Your task to perform on an android device: Add alienware aurora to the cart on bestbuy, then select checkout. Image 0: 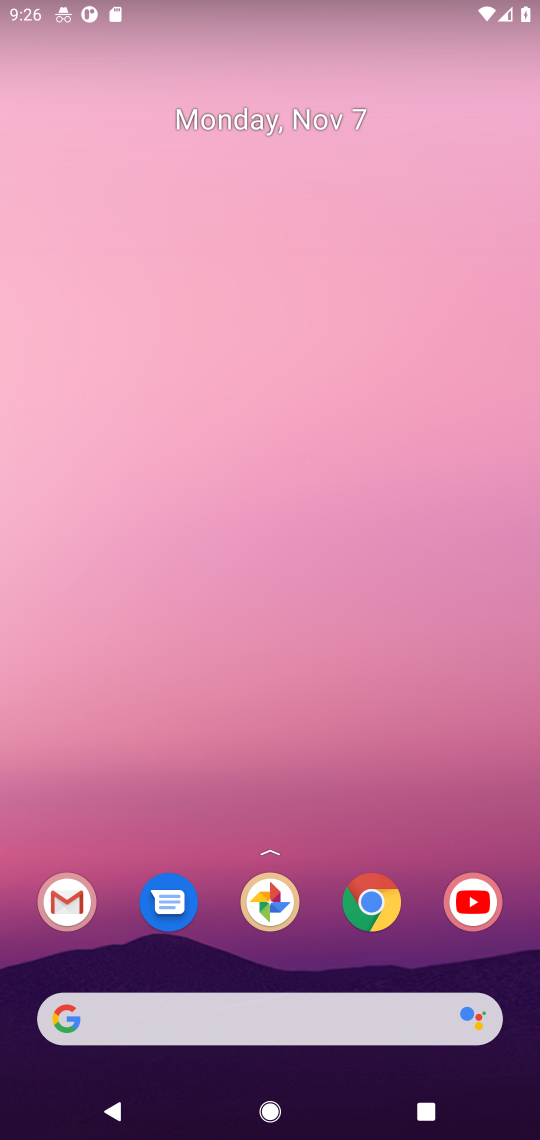
Step 0: click (370, 913)
Your task to perform on an android device: Add alienware aurora to the cart on bestbuy, then select checkout. Image 1: 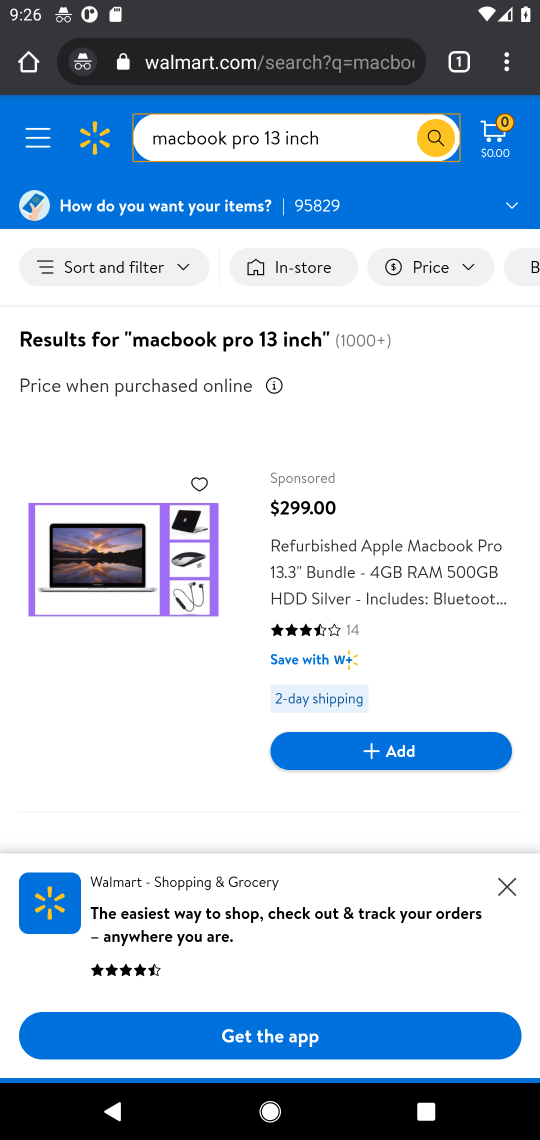
Step 1: click (291, 68)
Your task to perform on an android device: Add alienware aurora to the cart on bestbuy, then select checkout. Image 2: 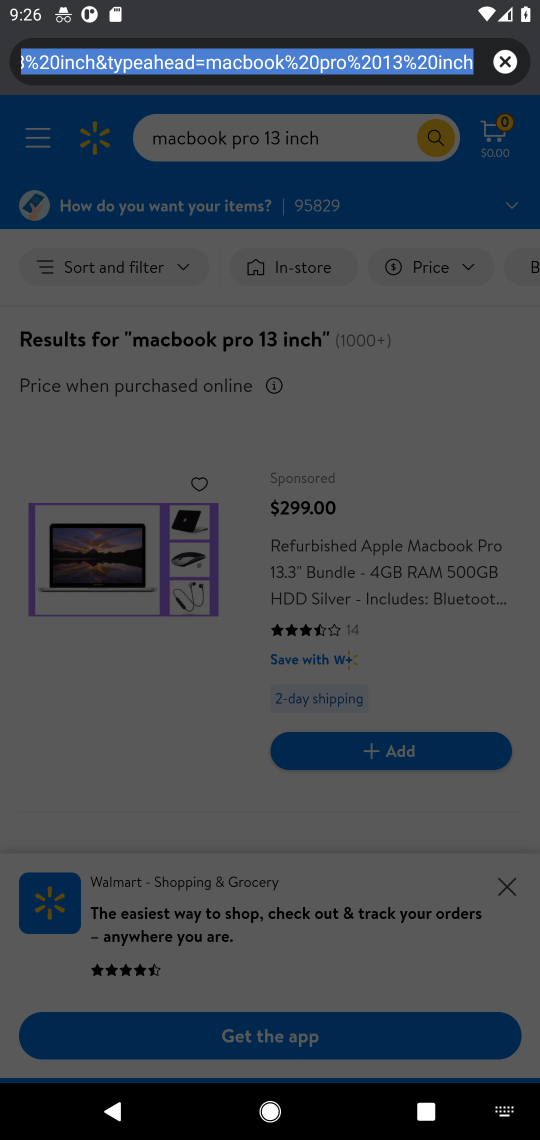
Step 2: type "bestbuy.com"
Your task to perform on an android device: Add alienware aurora to the cart on bestbuy, then select checkout. Image 3: 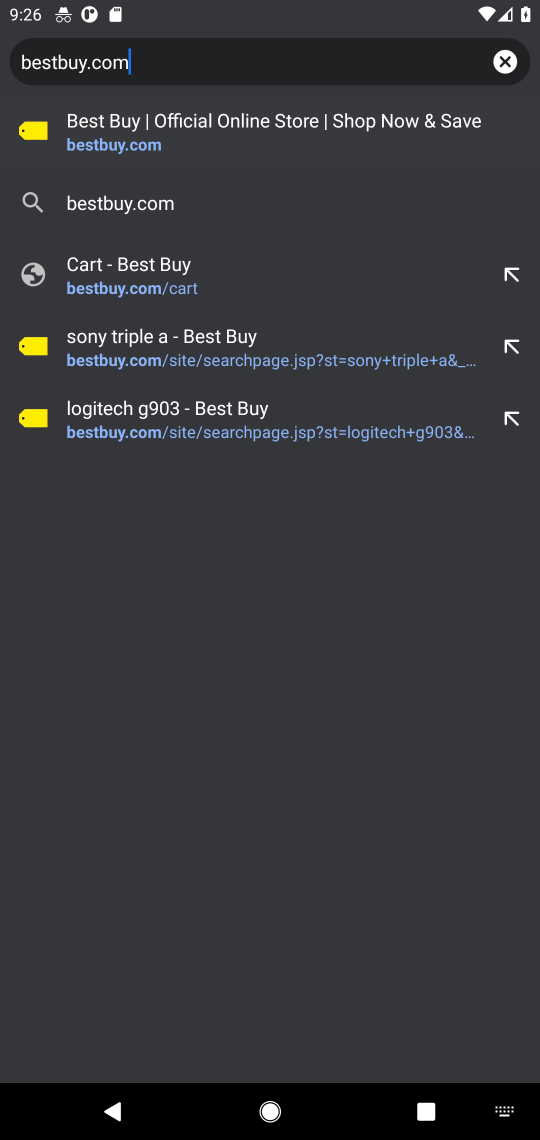
Step 3: click (148, 151)
Your task to perform on an android device: Add alienware aurora to the cart on bestbuy, then select checkout. Image 4: 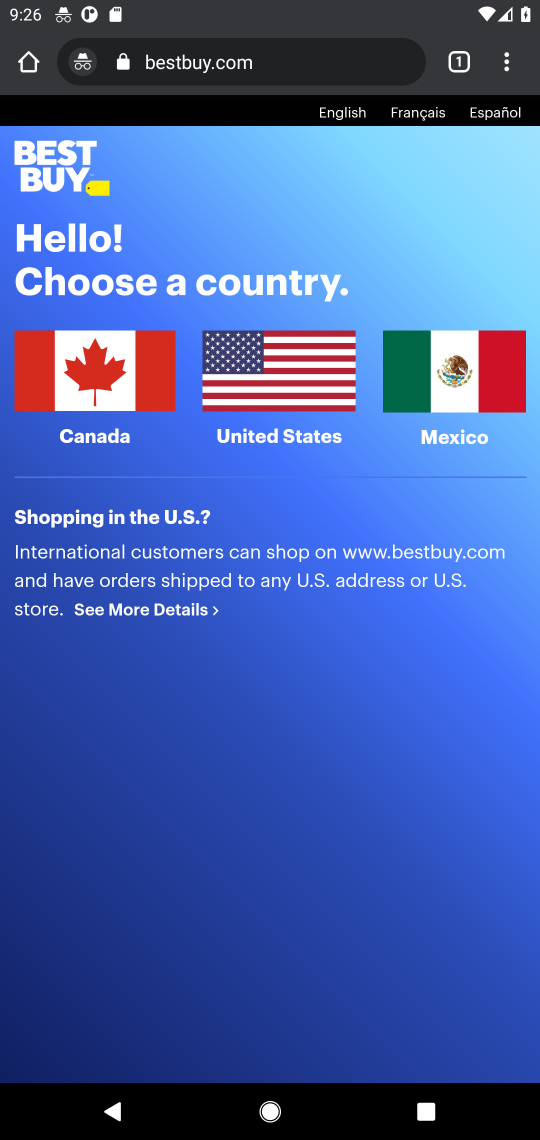
Step 4: click (308, 402)
Your task to perform on an android device: Add alienware aurora to the cart on bestbuy, then select checkout. Image 5: 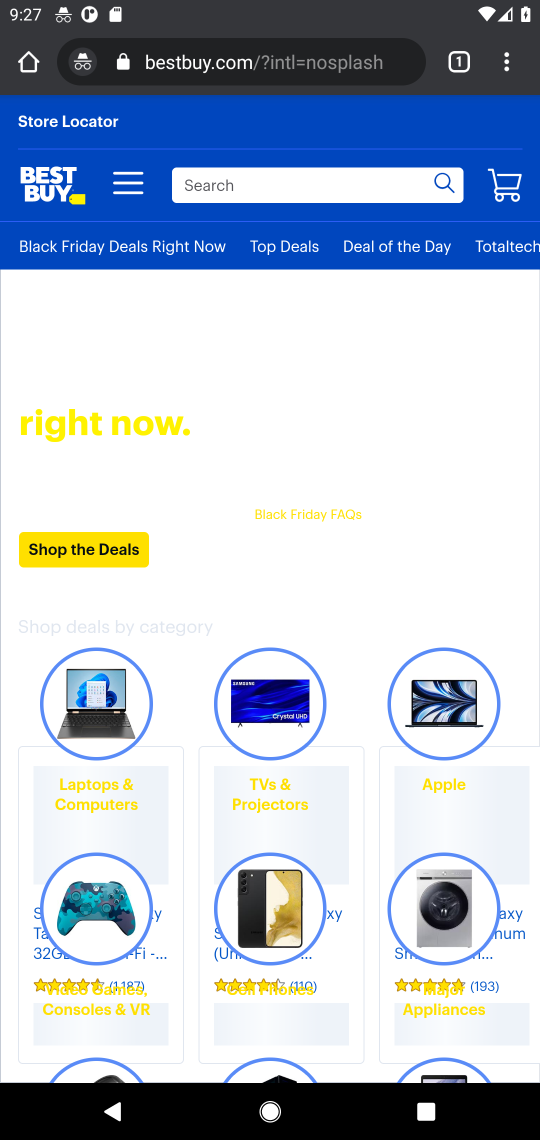
Step 5: click (263, 191)
Your task to perform on an android device: Add alienware aurora to the cart on bestbuy, then select checkout. Image 6: 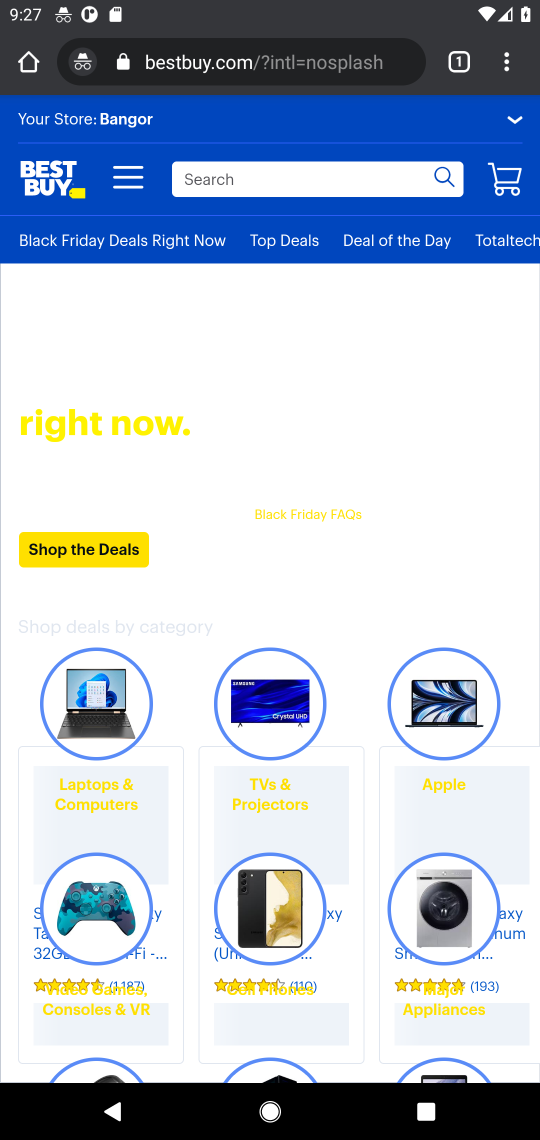
Step 6: click (324, 183)
Your task to perform on an android device: Add alienware aurora to the cart on bestbuy, then select checkout. Image 7: 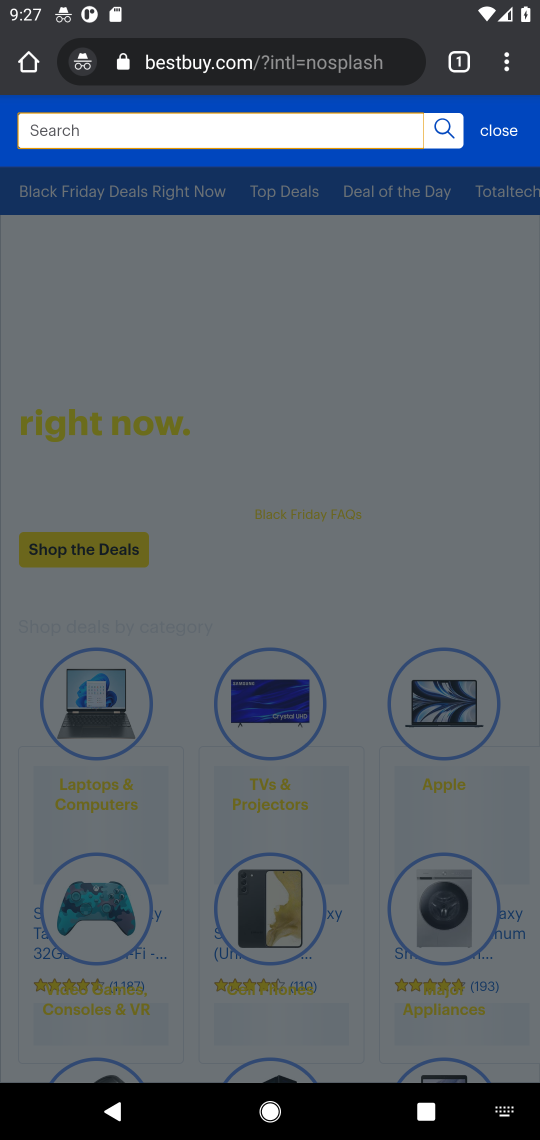
Step 7: type "alienware aurora"
Your task to perform on an android device: Add alienware aurora to the cart on bestbuy, then select checkout. Image 8: 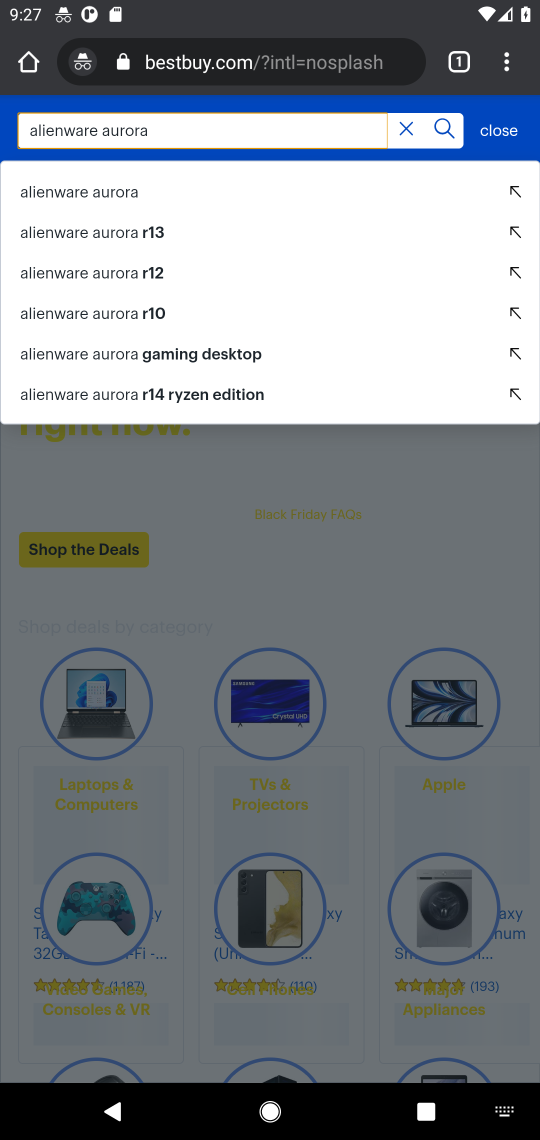
Step 8: click (105, 195)
Your task to perform on an android device: Add alienware aurora to the cart on bestbuy, then select checkout. Image 9: 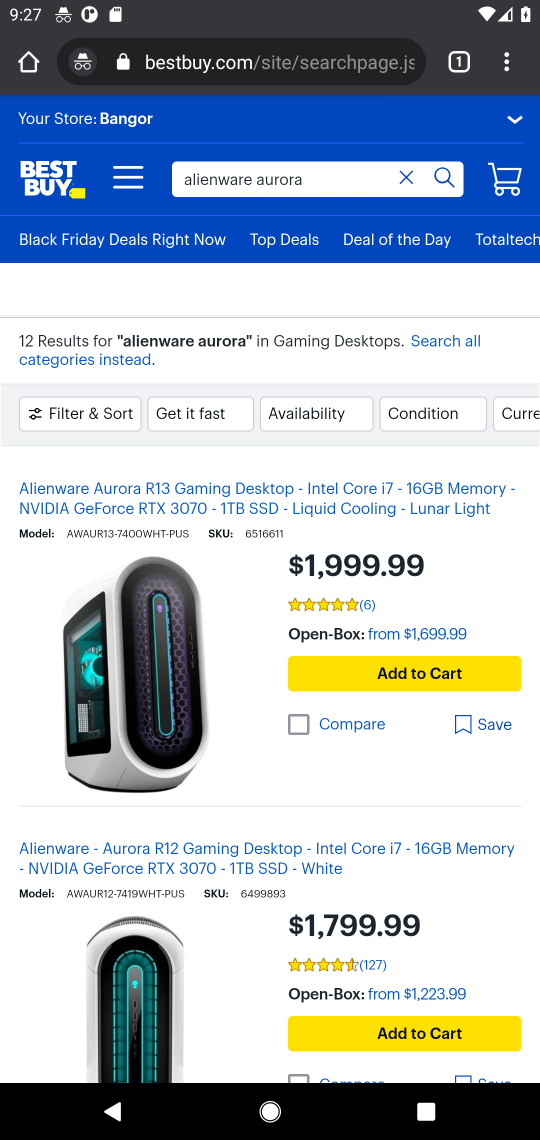
Step 9: click (362, 738)
Your task to perform on an android device: Add alienware aurora to the cart on bestbuy, then select checkout. Image 10: 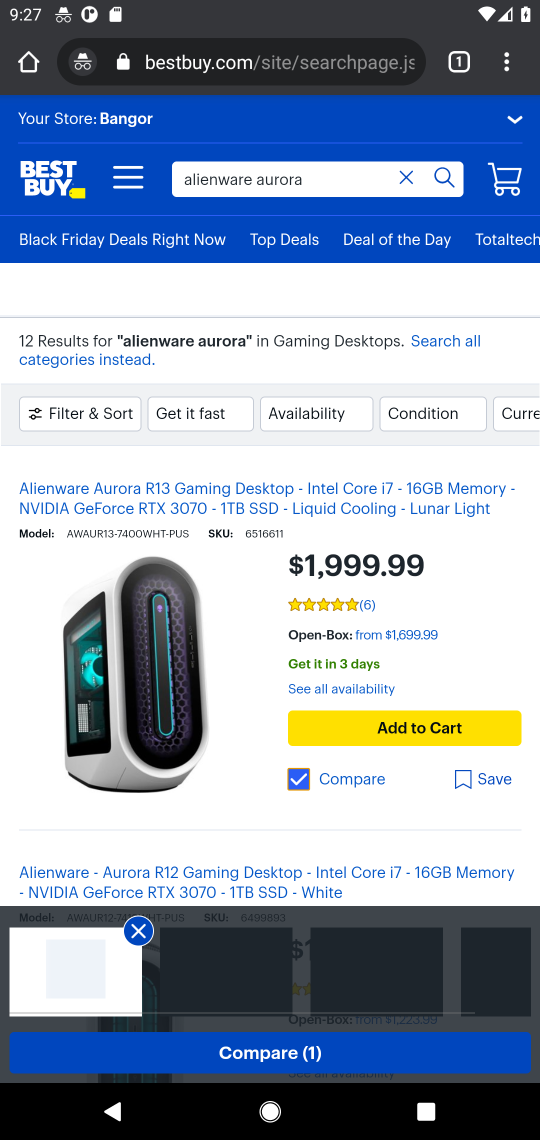
Step 10: click (412, 674)
Your task to perform on an android device: Add alienware aurora to the cart on bestbuy, then select checkout. Image 11: 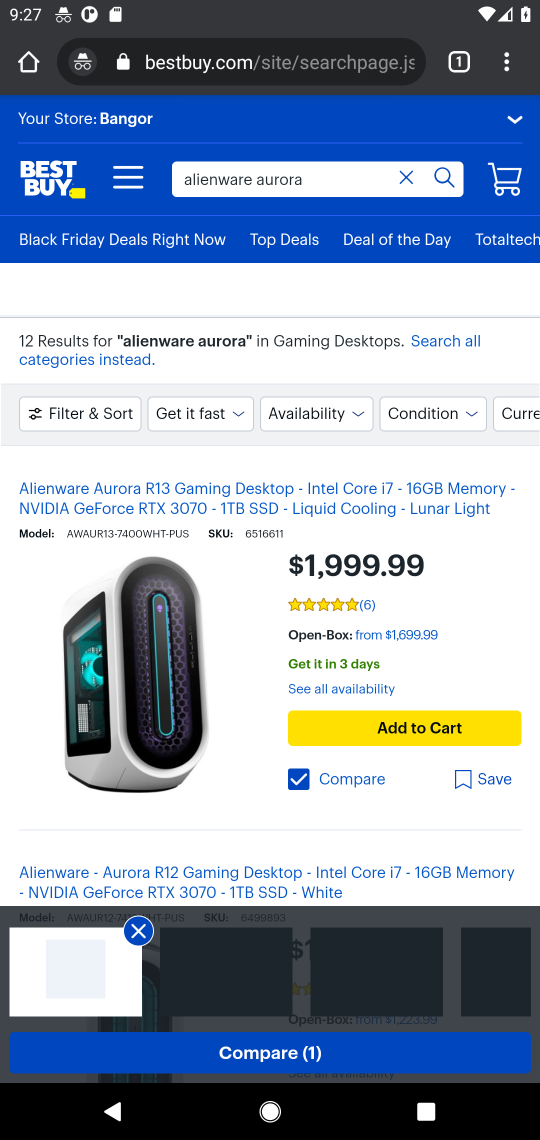
Step 11: click (391, 725)
Your task to perform on an android device: Add alienware aurora to the cart on bestbuy, then select checkout. Image 12: 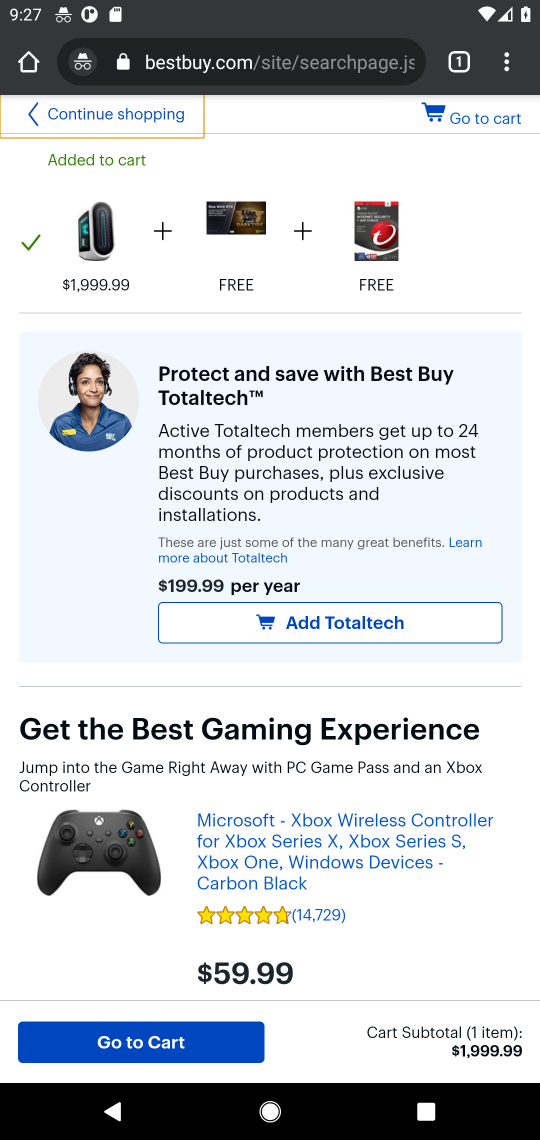
Step 12: click (472, 118)
Your task to perform on an android device: Add alienware aurora to the cart on bestbuy, then select checkout. Image 13: 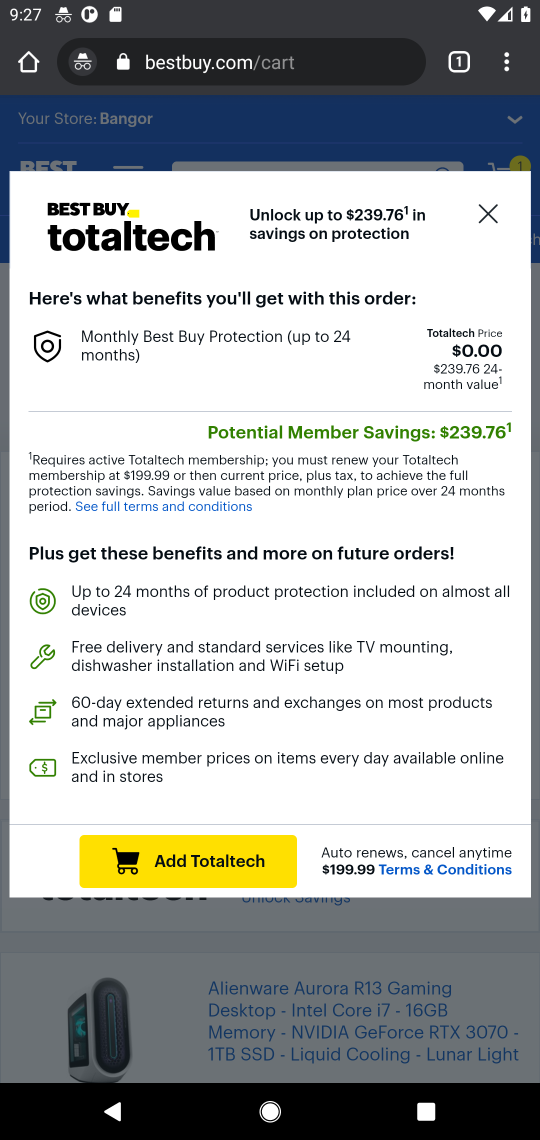
Step 13: click (490, 209)
Your task to perform on an android device: Add alienware aurora to the cart on bestbuy, then select checkout. Image 14: 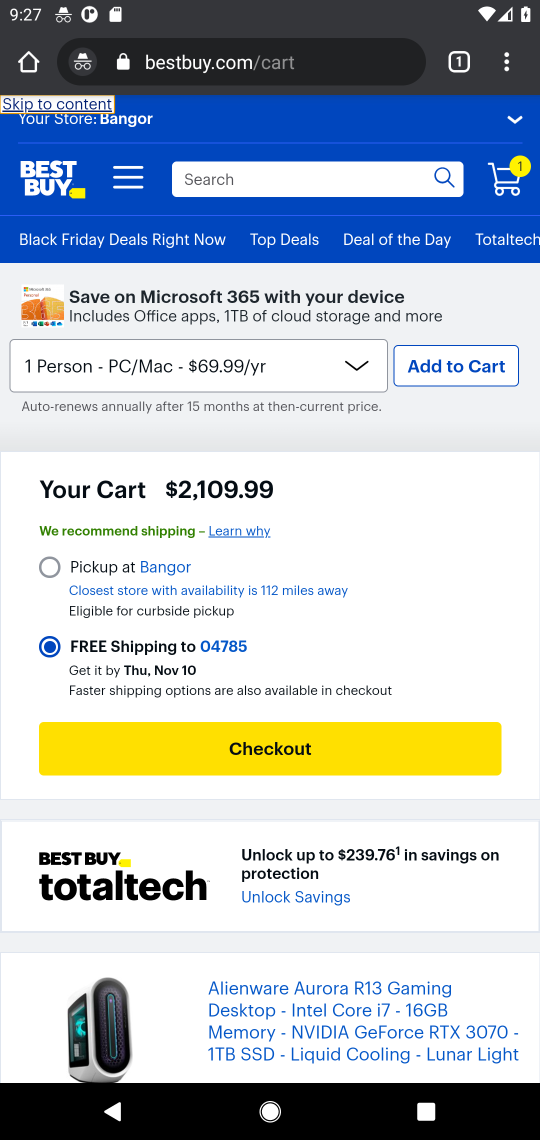
Step 14: click (321, 734)
Your task to perform on an android device: Add alienware aurora to the cart on bestbuy, then select checkout. Image 15: 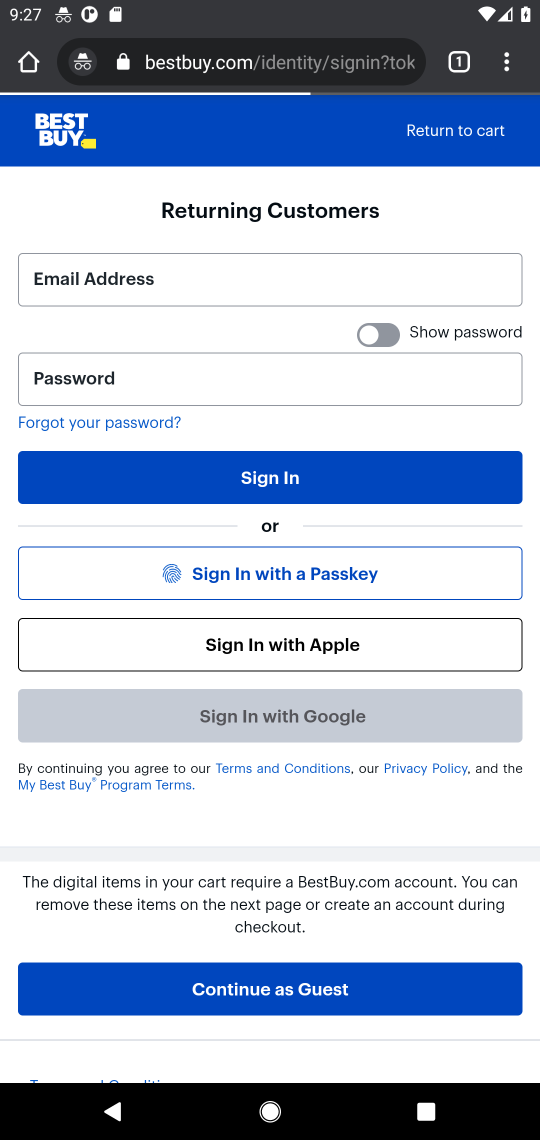
Step 15: task complete